Your task to perform on an android device: uninstall "Messenger Lite" Image 0: 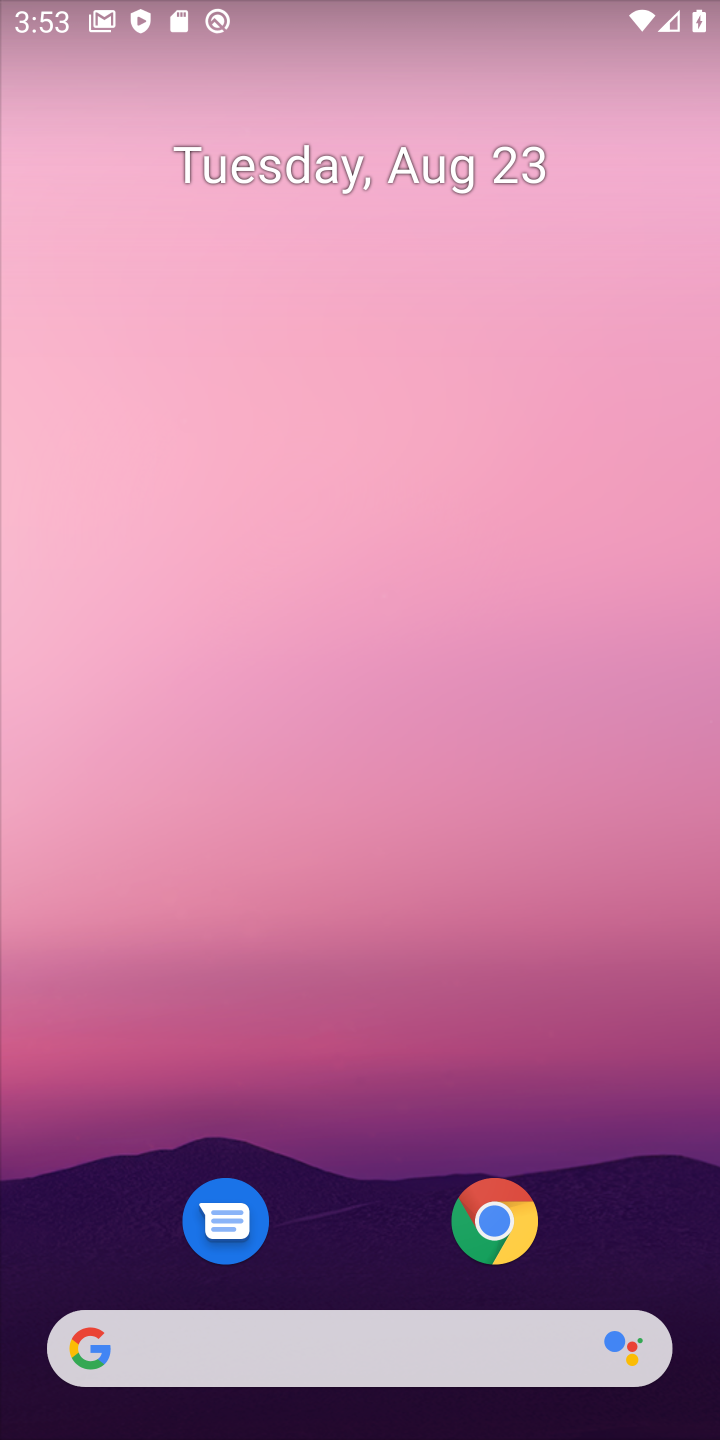
Step 0: drag from (334, 1275) to (288, 116)
Your task to perform on an android device: uninstall "Messenger Lite" Image 1: 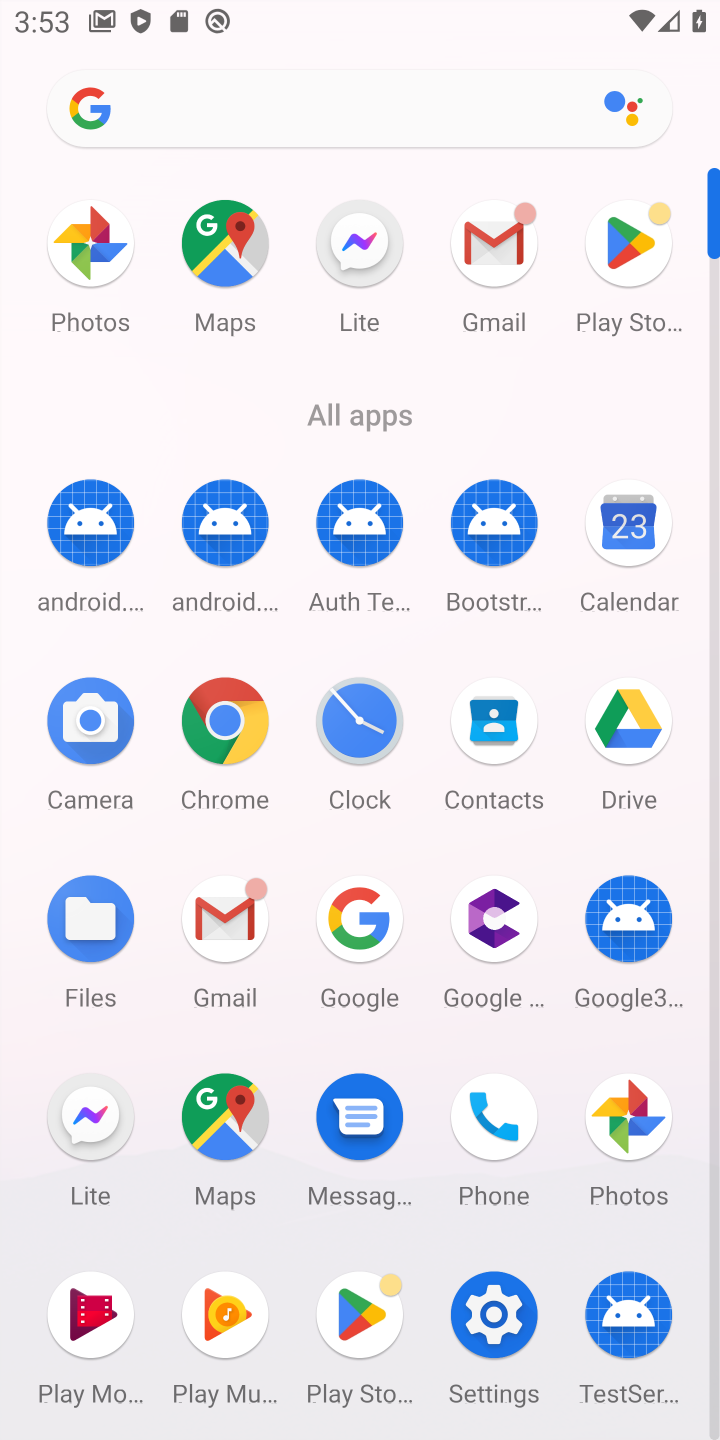
Step 1: click (616, 249)
Your task to perform on an android device: uninstall "Messenger Lite" Image 2: 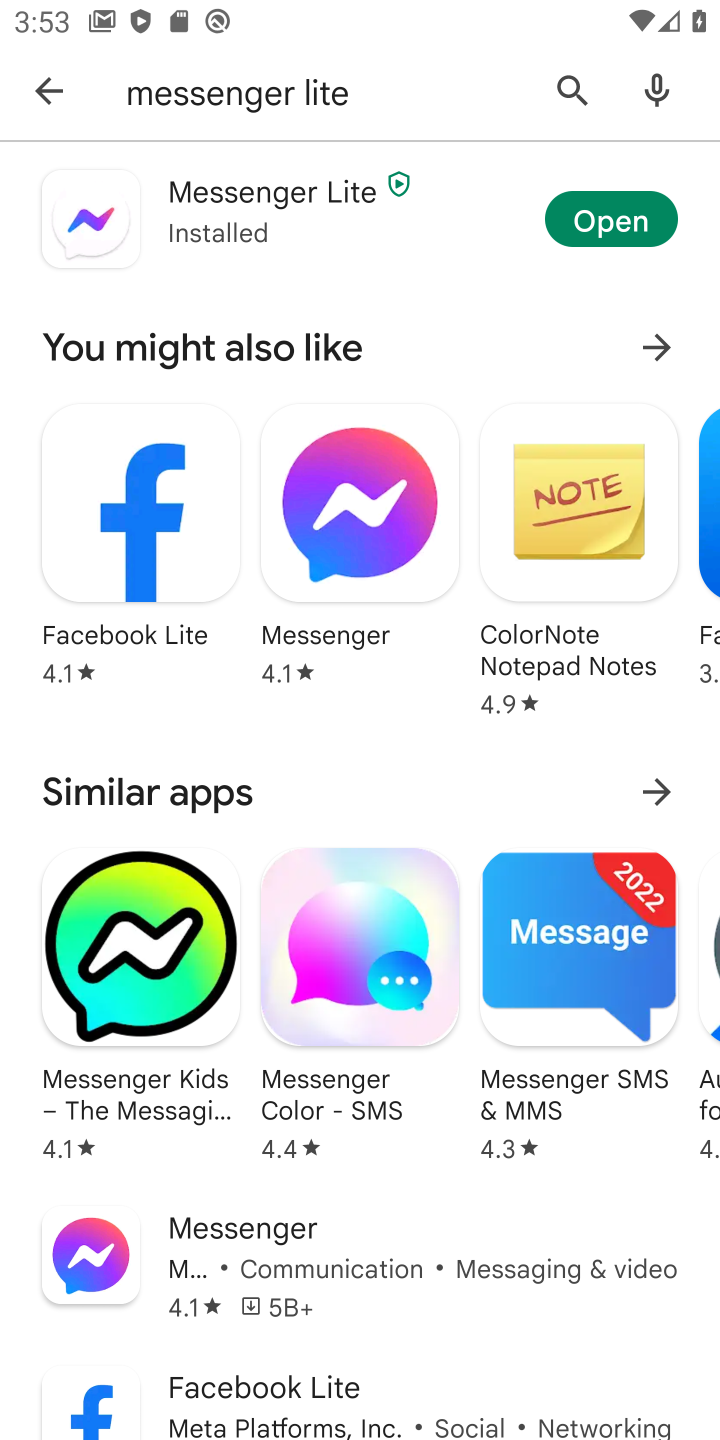
Step 2: click (228, 195)
Your task to perform on an android device: uninstall "Messenger Lite" Image 3: 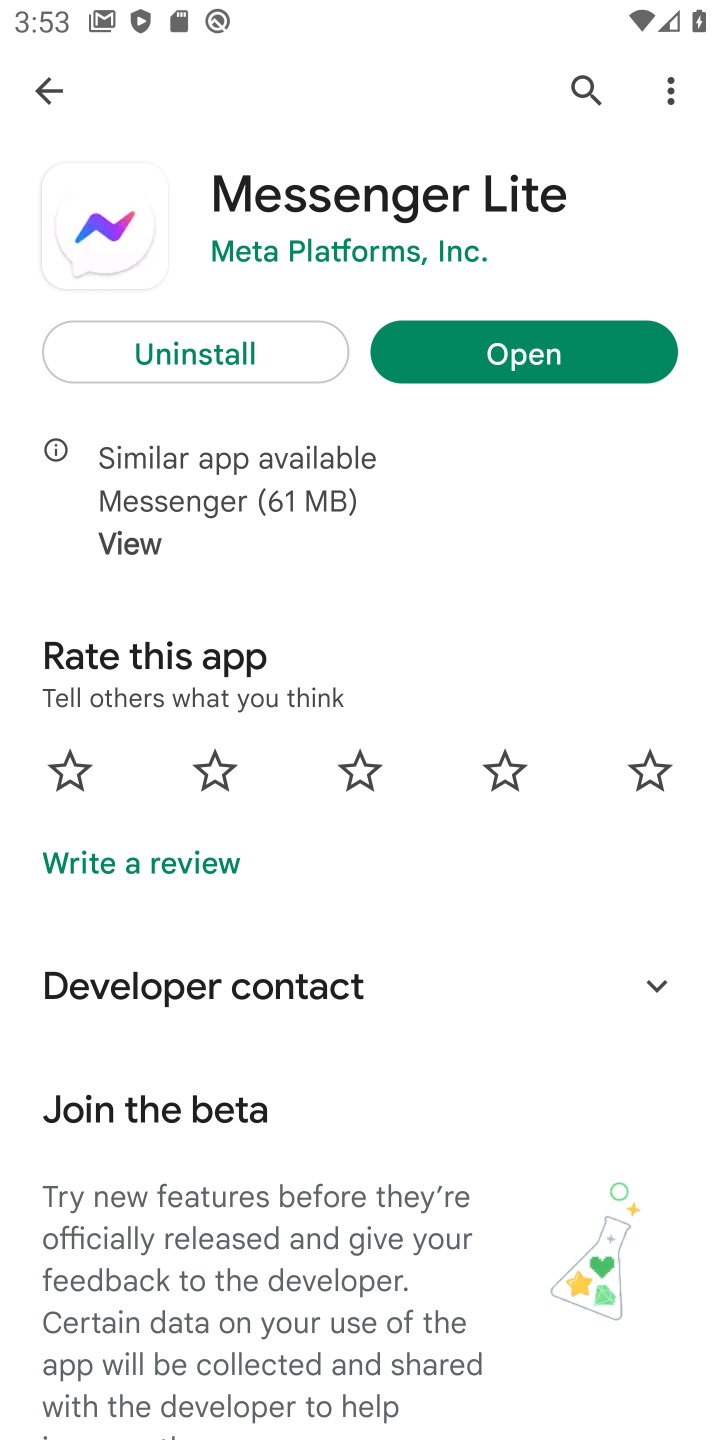
Step 3: click (219, 351)
Your task to perform on an android device: uninstall "Messenger Lite" Image 4: 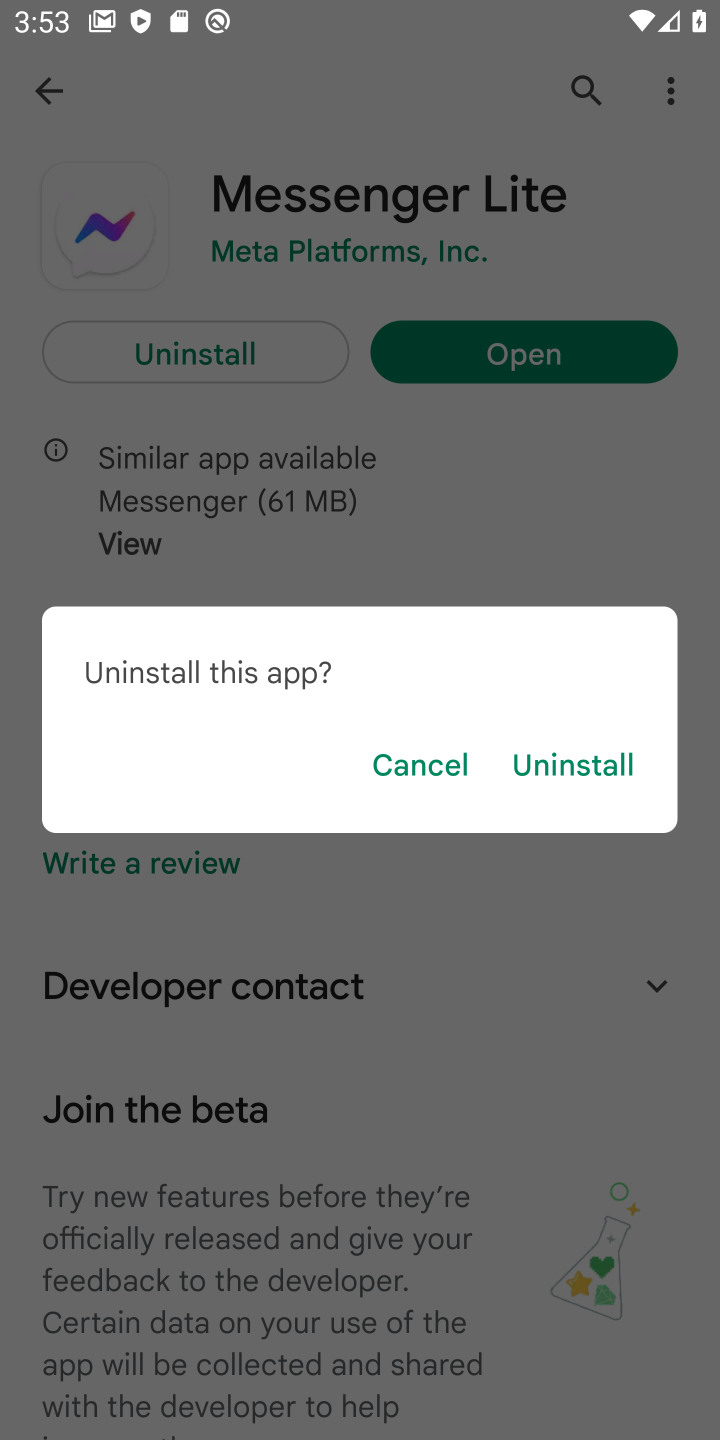
Step 4: click (548, 762)
Your task to perform on an android device: uninstall "Messenger Lite" Image 5: 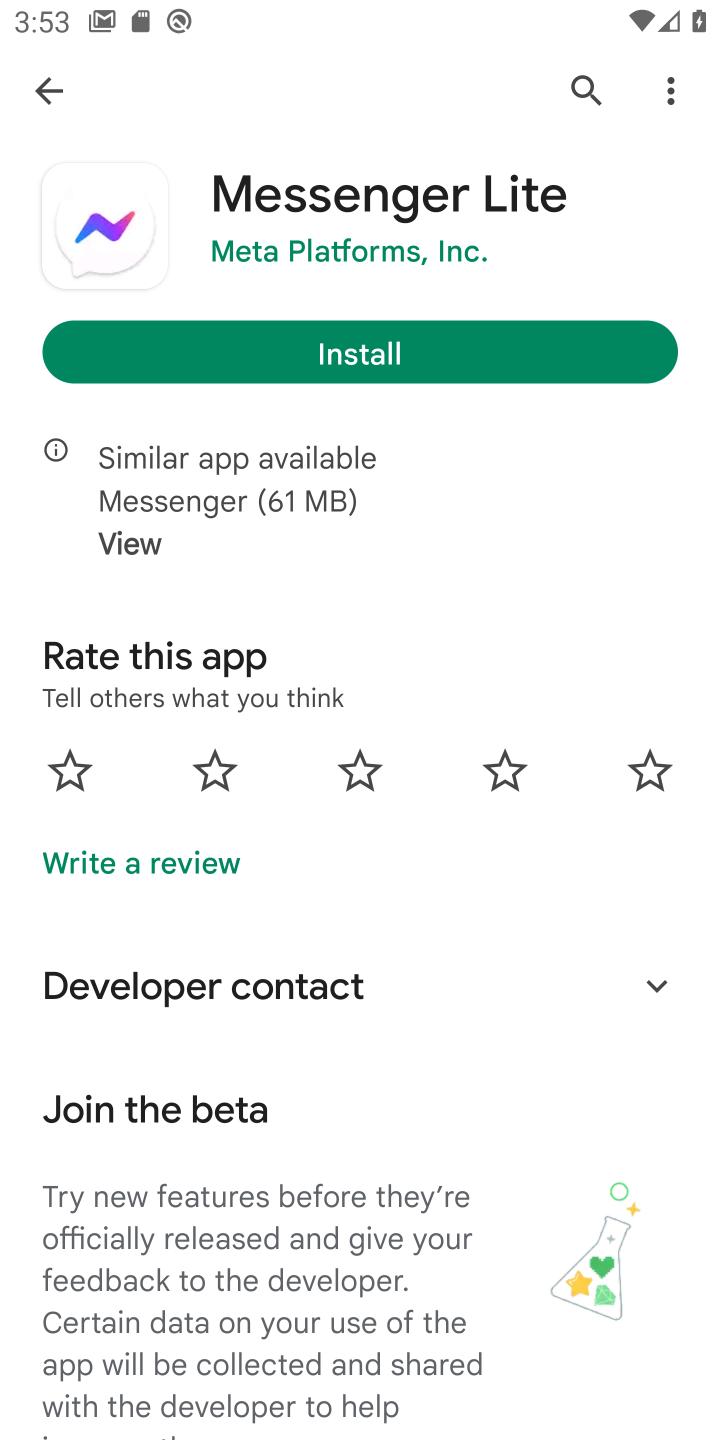
Step 5: task complete